Your task to perform on an android device: add a contact in the contacts app Image 0: 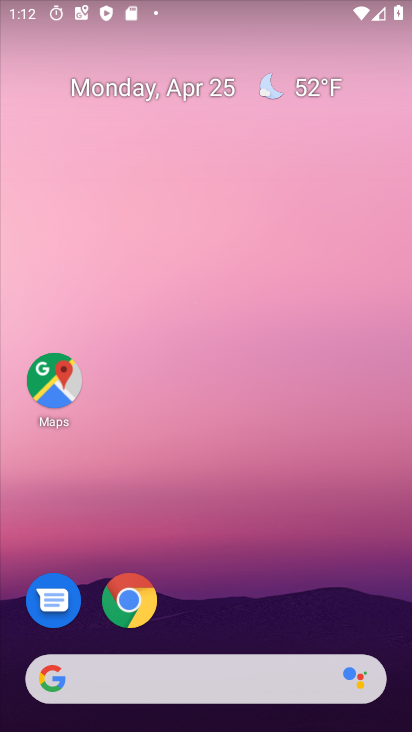
Step 0: press home button
Your task to perform on an android device: add a contact in the contacts app Image 1: 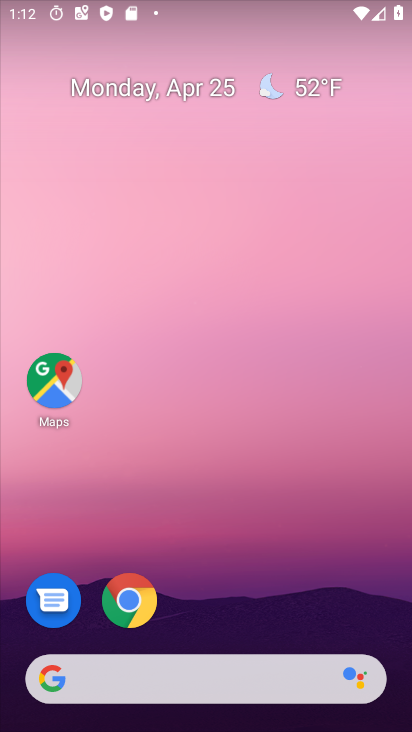
Step 1: drag from (134, 675) to (300, 83)
Your task to perform on an android device: add a contact in the contacts app Image 2: 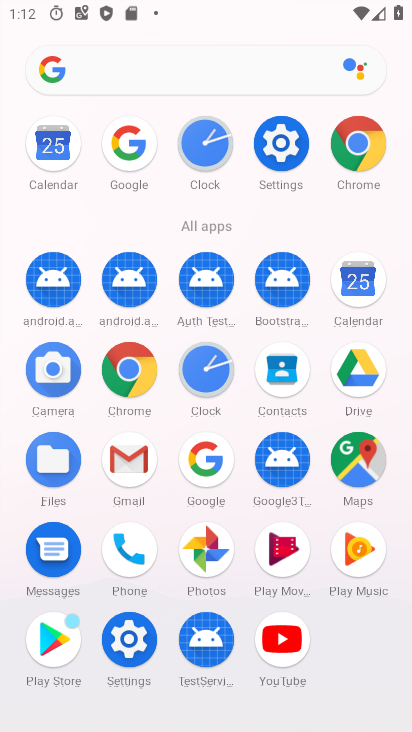
Step 2: click (286, 374)
Your task to perform on an android device: add a contact in the contacts app Image 3: 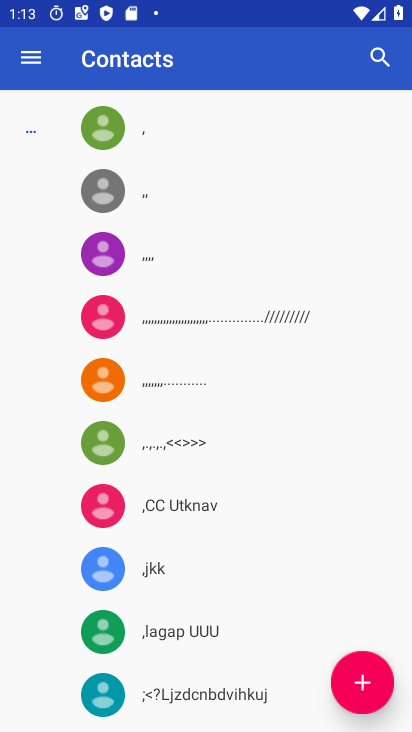
Step 3: click (361, 679)
Your task to perform on an android device: add a contact in the contacts app Image 4: 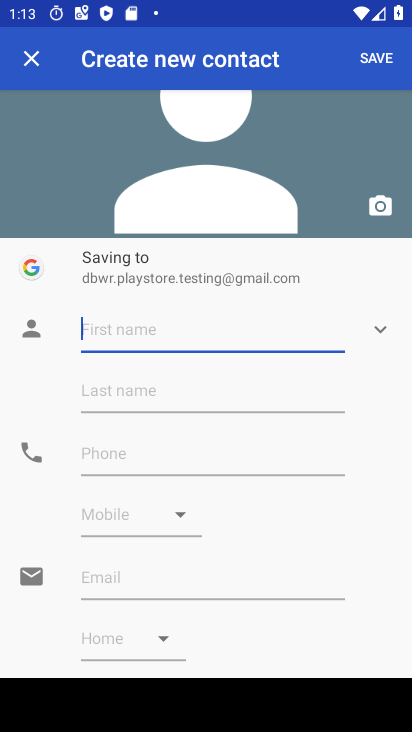
Step 4: click (110, 329)
Your task to perform on an android device: add a contact in the contacts app Image 5: 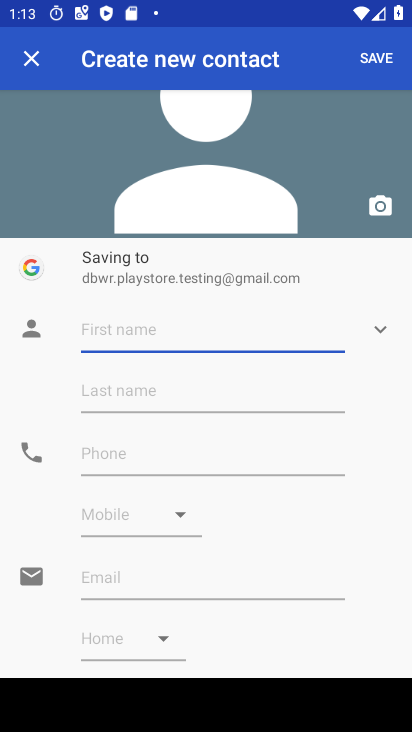
Step 5: type "cnhrytghfjd"
Your task to perform on an android device: add a contact in the contacts app Image 6: 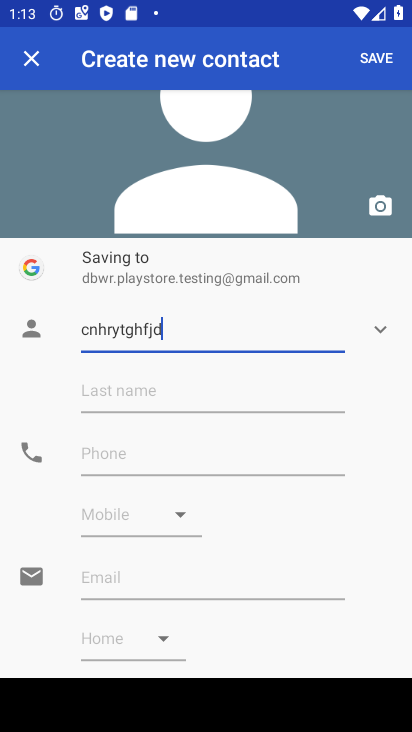
Step 6: click (108, 465)
Your task to perform on an android device: add a contact in the contacts app Image 7: 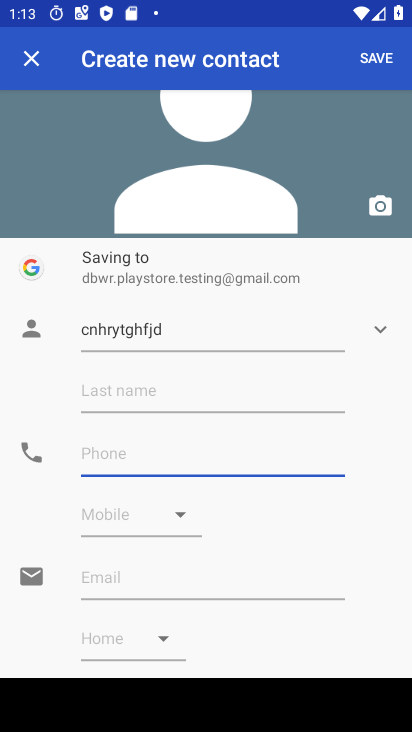
Step 7: type "2847563i"
Your task to perform on an android device: add a contact in the contacts app Image 8: 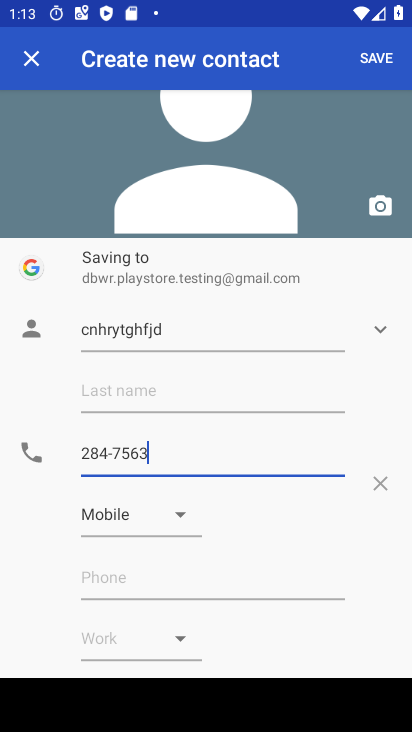
Step 8: click (379, 52)
Your task to perform on an android device: add a contact in the contacts app Image 9: 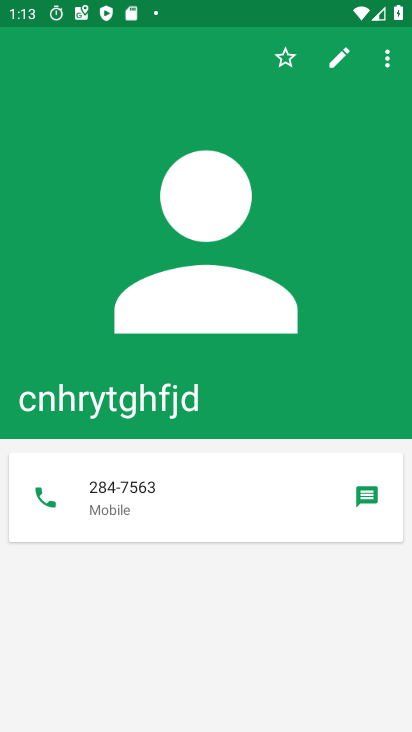
Step 9: task complete